Your task to perform on an android device: allow cookies in the chrome app Image 0: 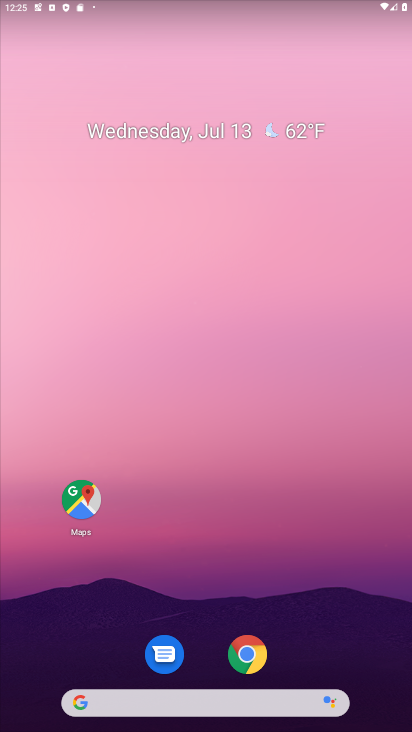
Step 0: press home button
Your task to perform on an android device: allow cookies in the chrome app Image 1: 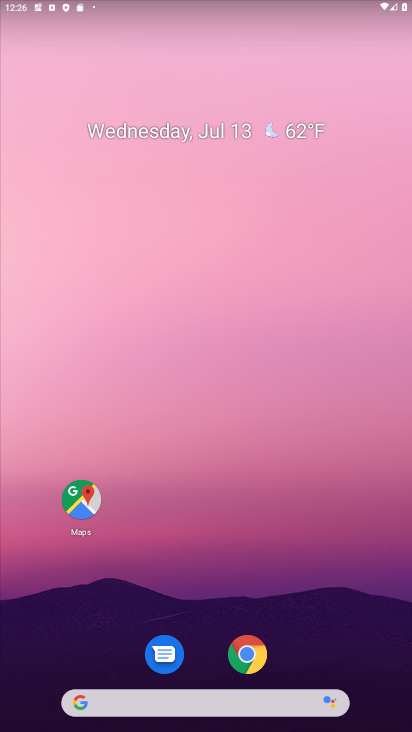
Step 1: drag from (279, 690) to (336, 3)
Your task to perform on an android device: allow cookies in the chrome app Image 2: 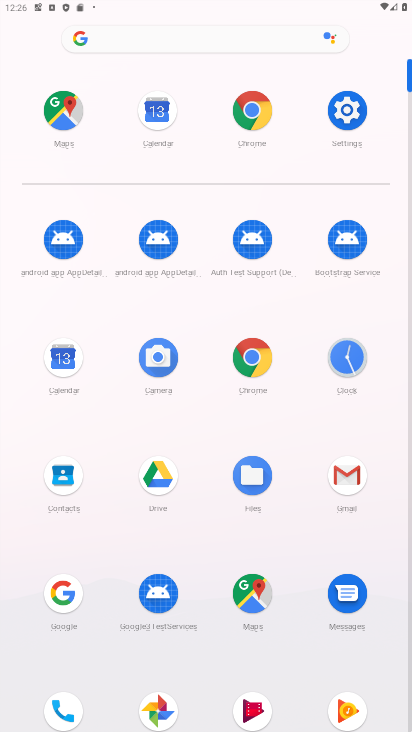
Step 2: click (251, 361)
Your task to perform on an android device: allow cookies in the chrome app Image 3: 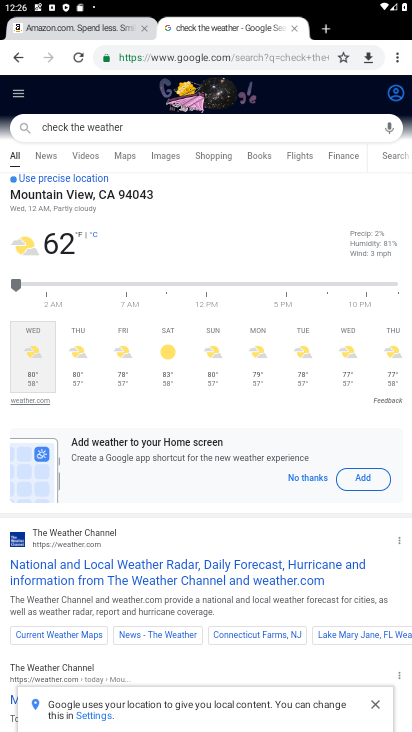
Step 3: drag from (398, 60) to (295, 352)
Your task to perform on an android device: allow cookies in the chrome app Image 4: 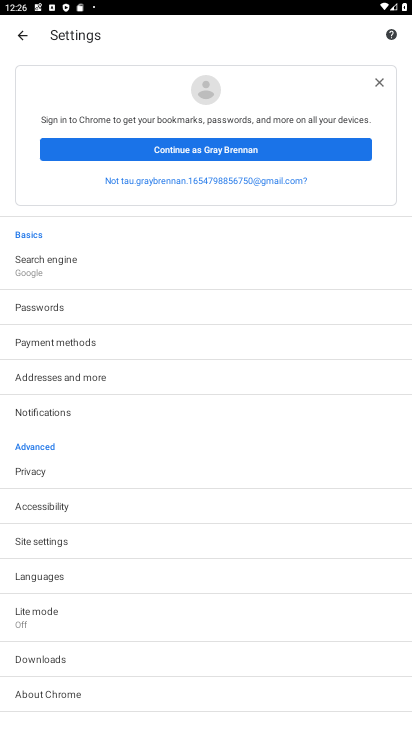
Step 4: click (103, 539)
Your task to perform on an android device: allow cookies in the chrome app Image 5: 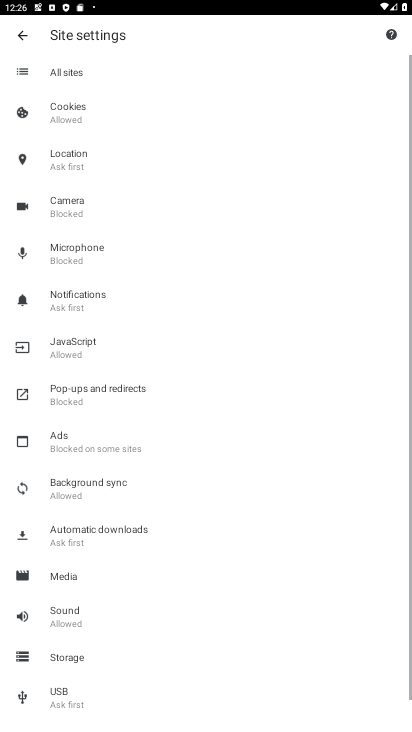
Step 5: click (93, 100)
Your task to perform on an android device: allow cookies in the chrome app Image 6: 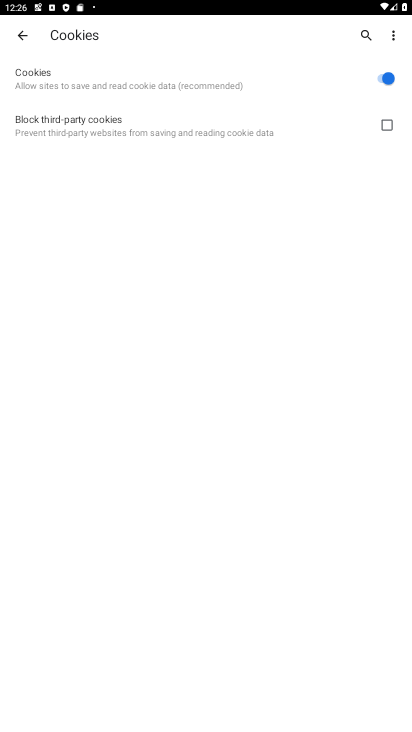
Step 6: task complete